Your task to perform on an android device: Go to wifi settings Image 0: 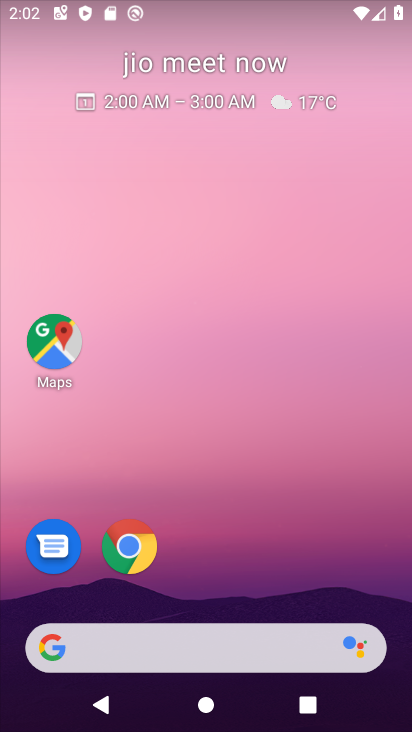
Step 0: drag from (266, 601) to (255, 139)
Your task to perform on an android device: Go to wifi settings Image 1: 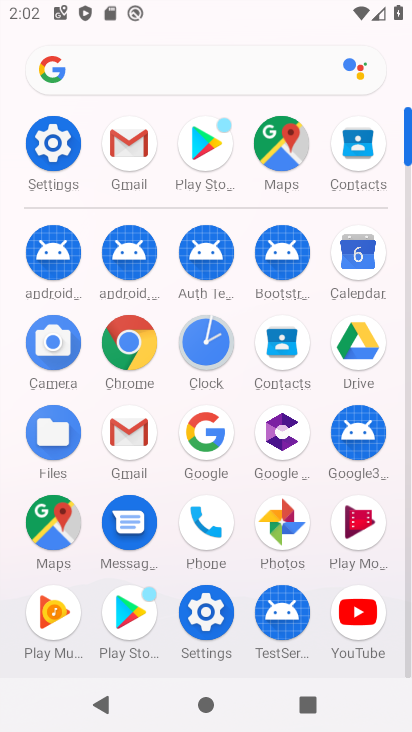
Step 1: click (48, 152)
Your task to perform on an android device: Go to wifi settings Image 2: 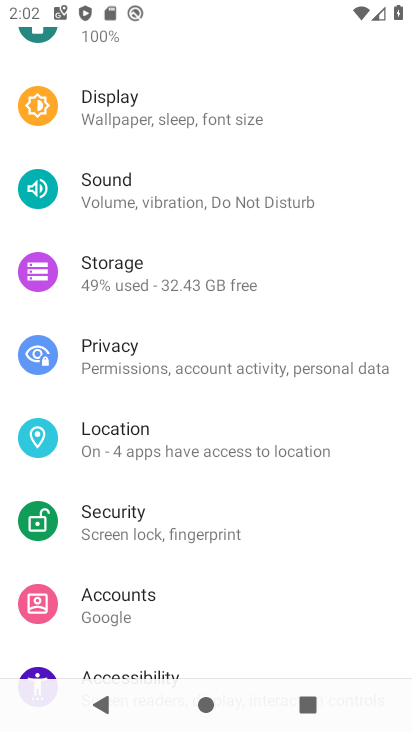
Step 2: drag from (164, 164) to (169, 556)
Your task to perform on an android device: Go to wifi settings Image 3: 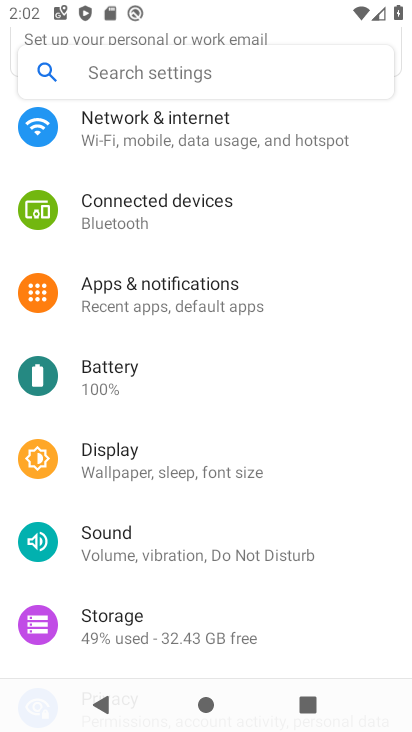
Step 3: click (201, 136)
Your task to perform on an android device: Go to wifi settings Image 4: 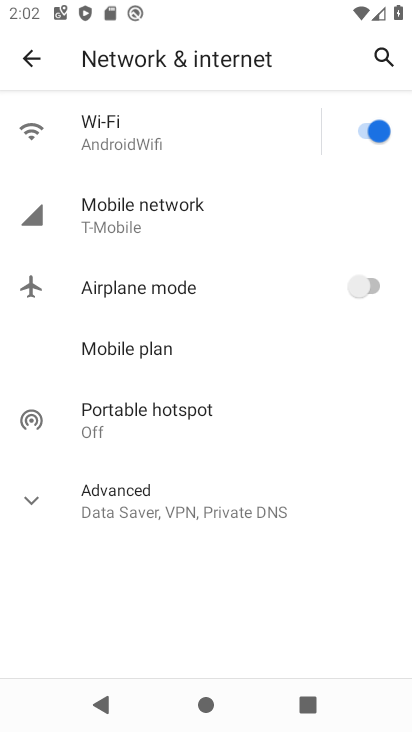
Step 4: task complete